Your task to perform on an android device: turn on showing notifications on the lock screen Image 0: 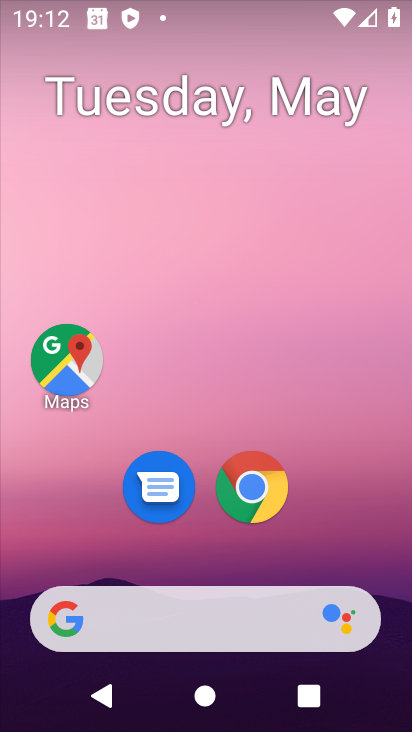
Step 0: drag from (338, 535) to (281, 49)
Your task to perform on an android device: turn on showing notifications on the lock screen Image 1: 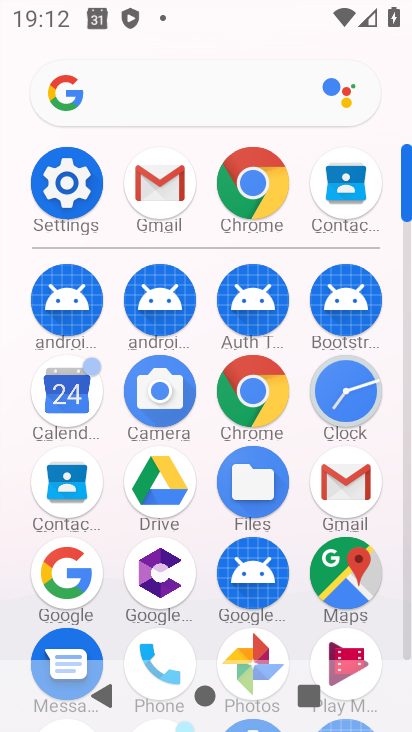
Step 1: click (66, 179)
Your task to perform on an android device: turn on showing notifications on the lock screen Image 2: 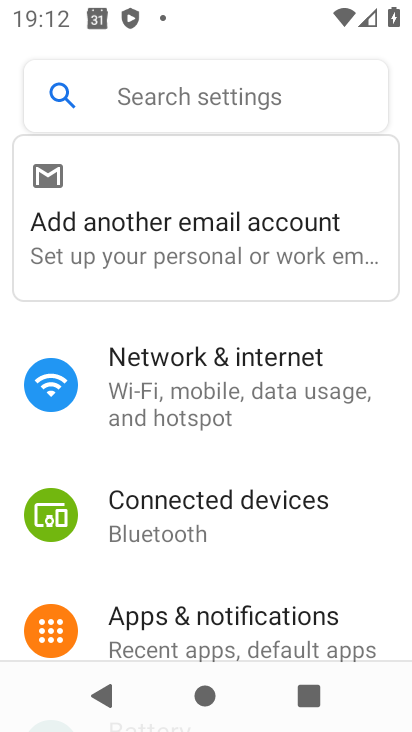
Step 2: click (230, 627)
Your task to perform on an android device: turn on showing notifications on the lock screen Image 3: 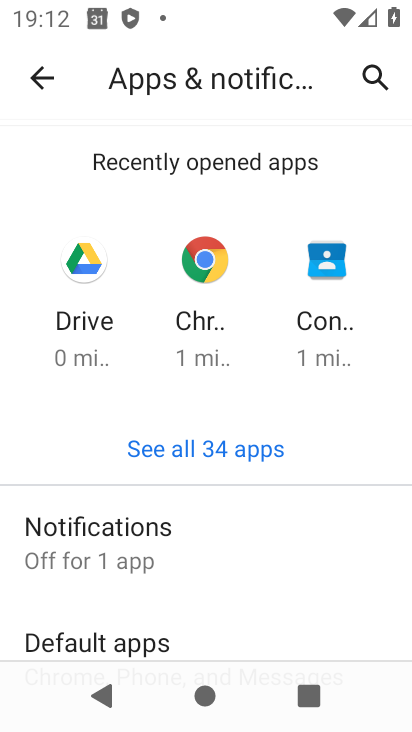
Step 3: click (119, 522)
Your task to perform on an android device: turn on showing notifications on the lock screen Image 4: 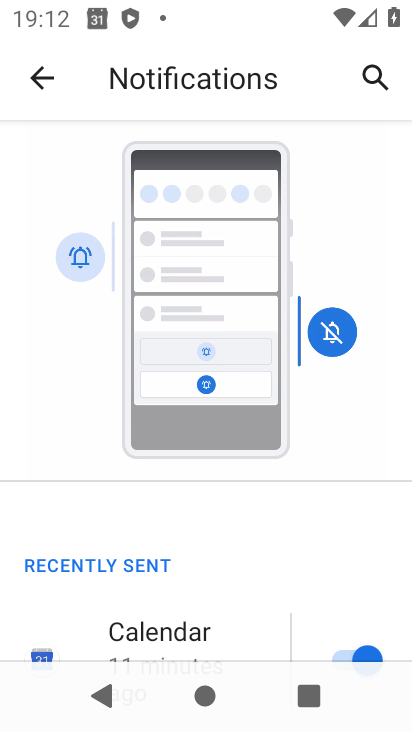
Step 4: drag from (294, 557) to (293, 291)
Your task to perform on an android device: turn on showing notifications on the lock screen Image 5: 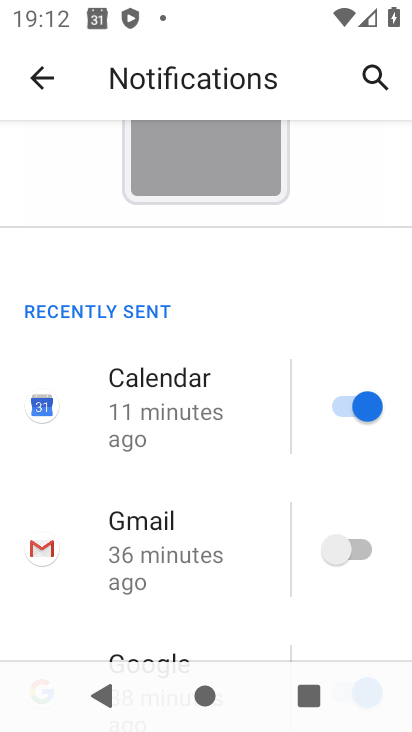
Step 5: drag from (257, 590) to (253, 250)
Your task to perform on an android device: turn on showing notifications on the lock screen Image 6: 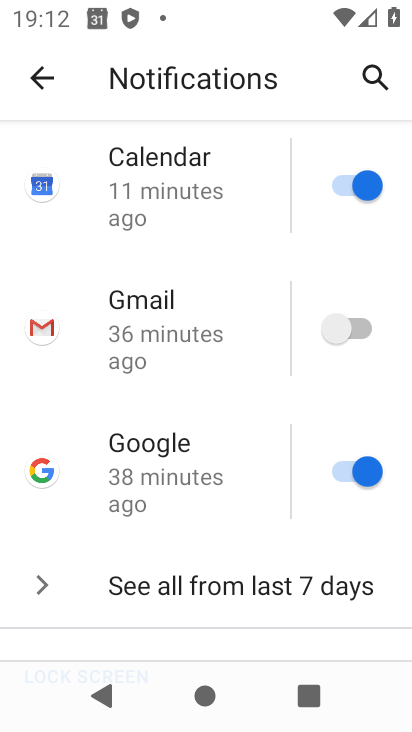
Step 6: drag from (244, 500) to (229, 222)
Your task to perform on an android device: turn on showing notifications on the lock screen Image 7: 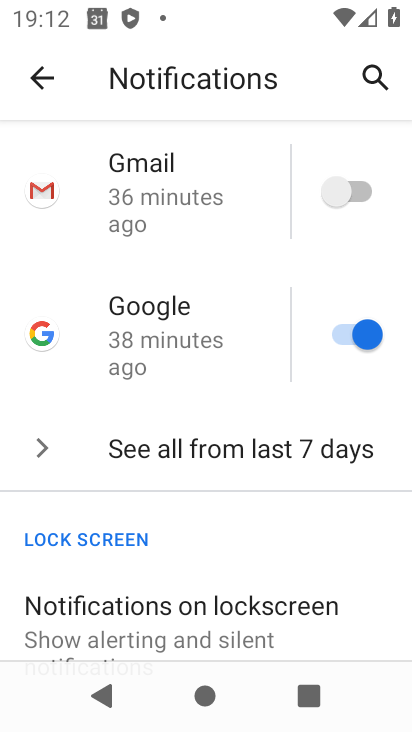
Step 7: click (192, 603)
Your task to perform on an android device: turn on showing notifications on the lock screen Image 8: 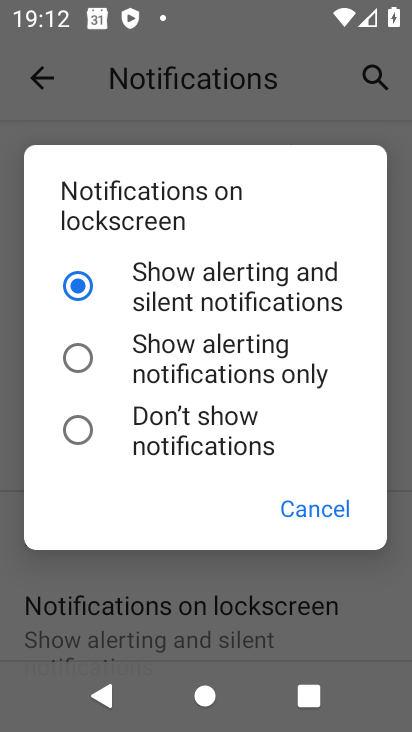
Step 8: task complete